Your task to perform on an android device: turn off wifi Image 0: 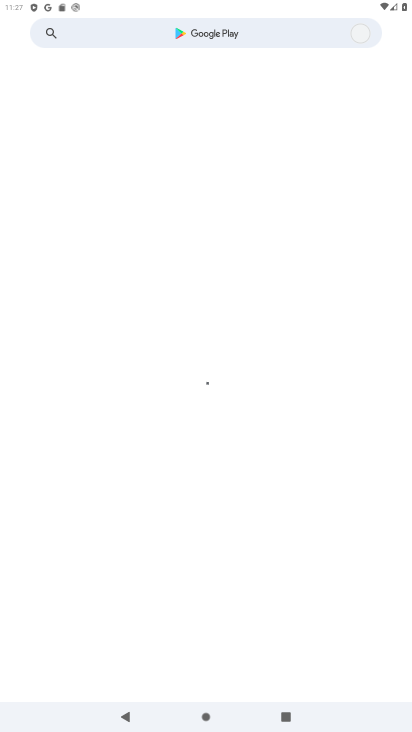
Step 0: drag from (311, 9) to (286, 639)
Your task to perform on an android device: turn off wifi Image 1: 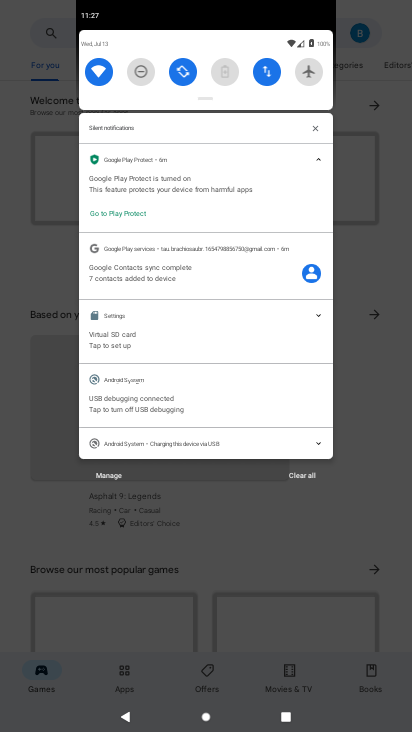
Step 1: click (101, 75)
Your task to perform on an android device: turn off wifi Image 2: 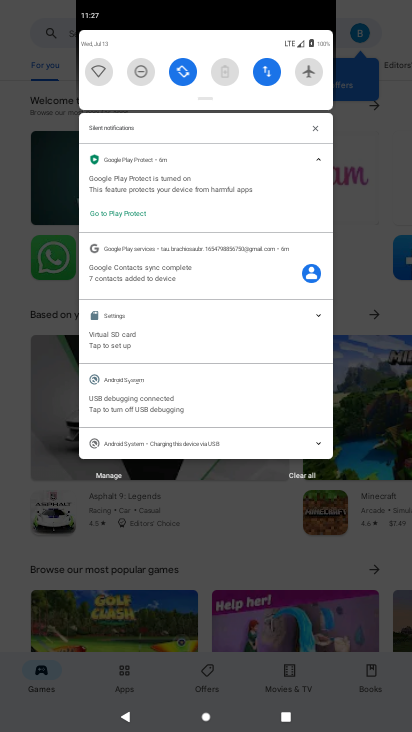
Step 2: task complete